Your task to perform on an android device: Open internet settings Image 0: 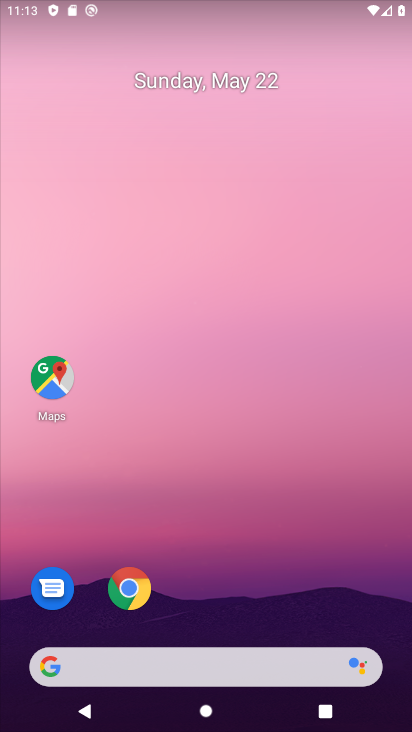
Step 0: drag from (213, 631) to (126, 102)
Your task to perform on an android device: Open internet settings Image 1: 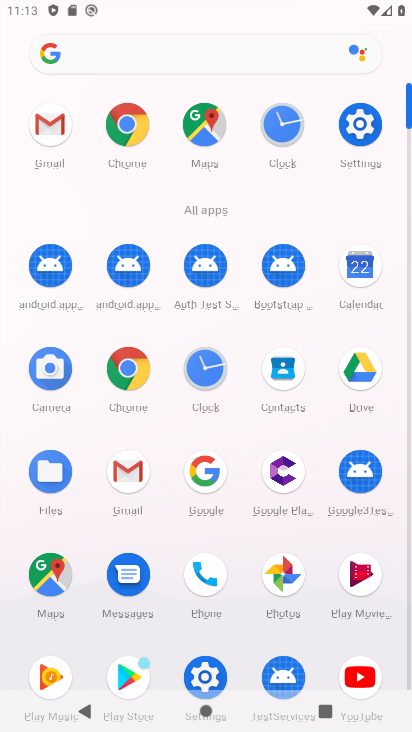
Step 1: click (356, 118)
Your task to perform on an android device: Open internet settings Image 2: 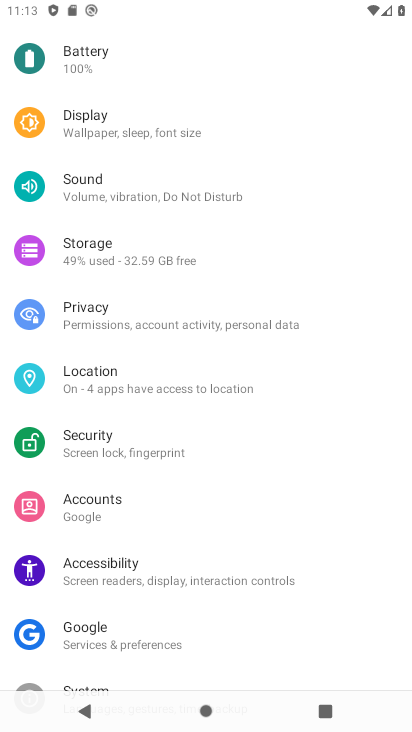
Step 2: drag from (254, 136) to (204, 571)
Your task to perform on an android device: Open internet settings Image 3: 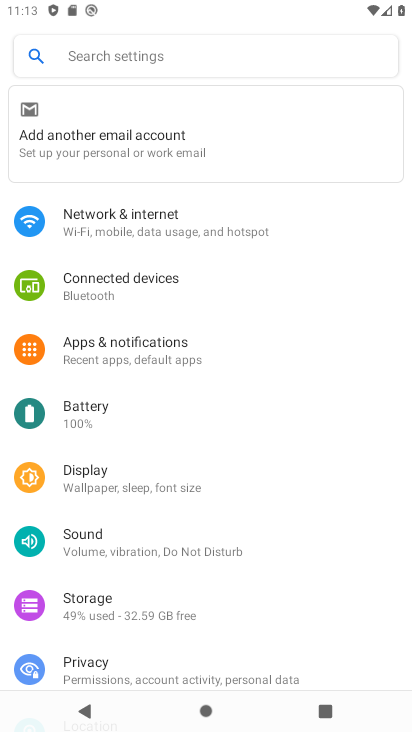
Step 3: click (110, 257)
Your task to perform on an android device: Open internet settings Image 4: 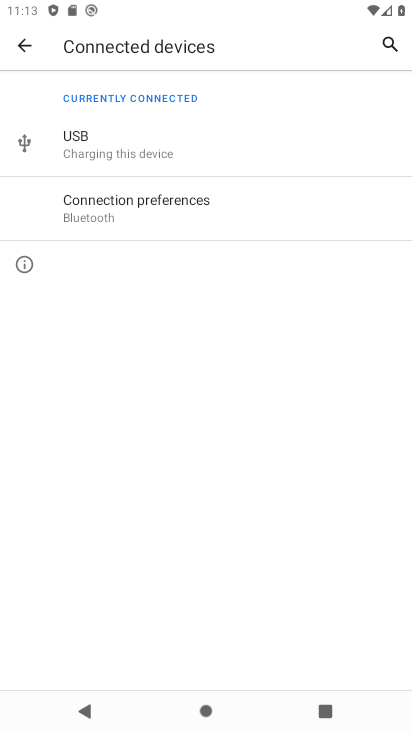
Step 4: click (33, 54)
Your task to perform on an android device: Open internet settings Image 5: 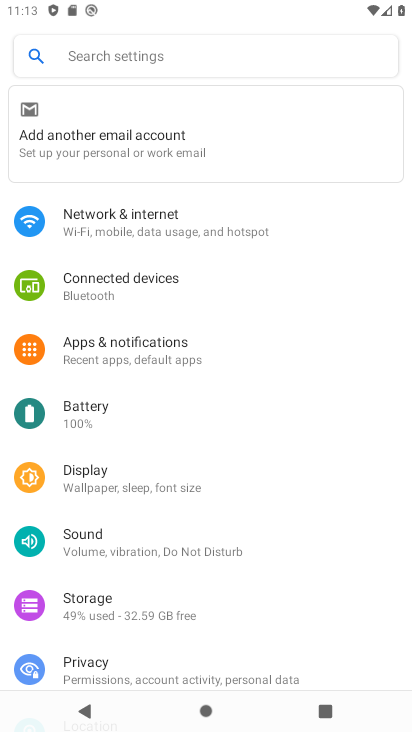
Step 5: click (100, 237)
Your task to perform on an android device: Open internet settings Image 6: 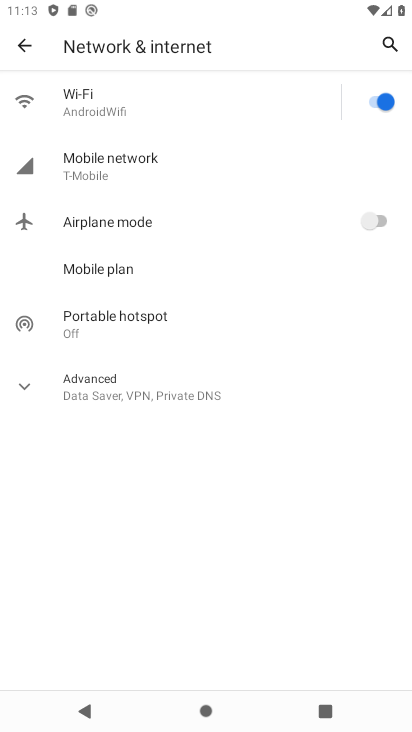
Step 6: click (105, 179)
Your task to perform on an android device: Open internet settings Image 7: 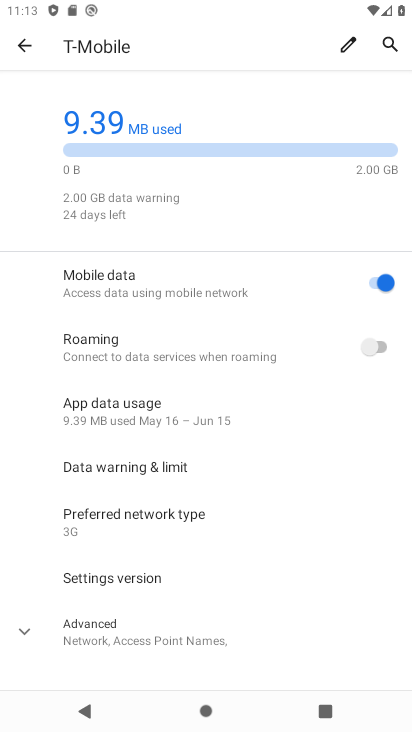
Step 7: task complete